Your task to perform on an android device: change your default location settings in chrome Image 0: 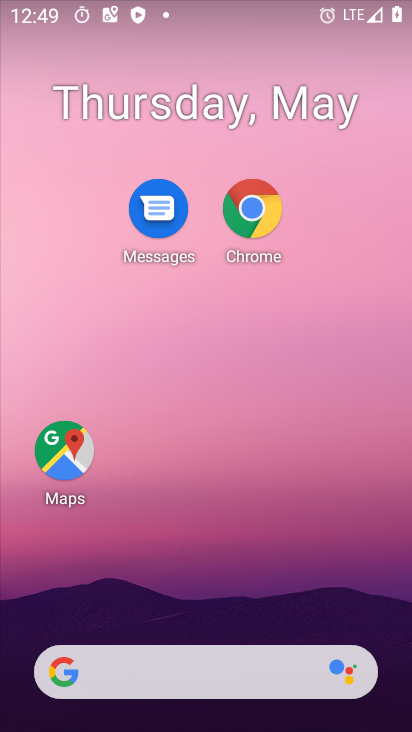
Step 0: drag from (181, 290) to (178, 248)
Your task to perform on an android device: change your default location settings in chrome Image 1: 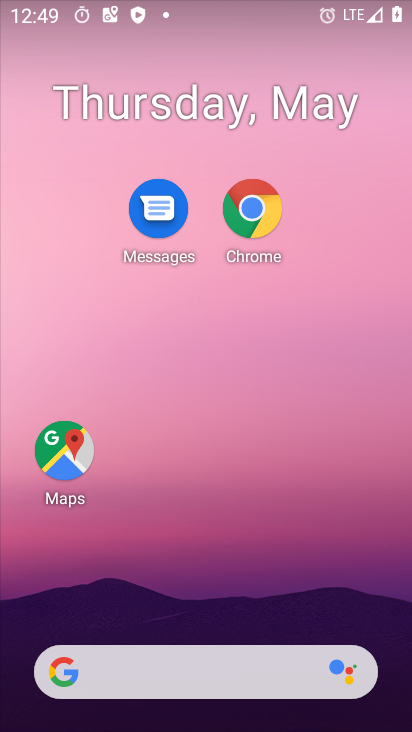
Step 1: click (260, 214)
Your task to perform on an android device: change your default location settings in chrome Image 2: 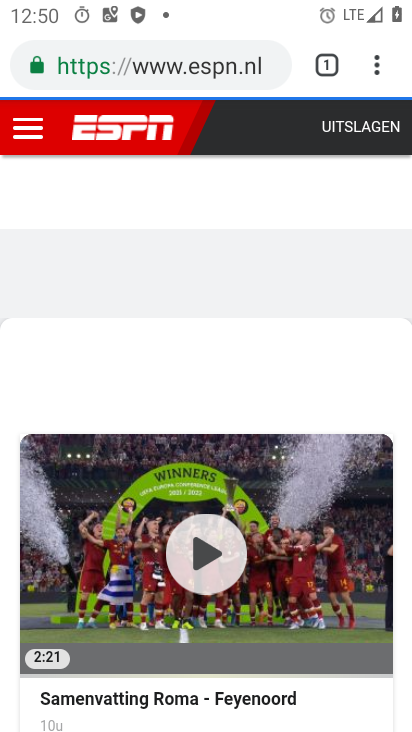
Step 2: click (379, 75)
Your task to perform on an android device: change your default location settings in chrome Image 3: 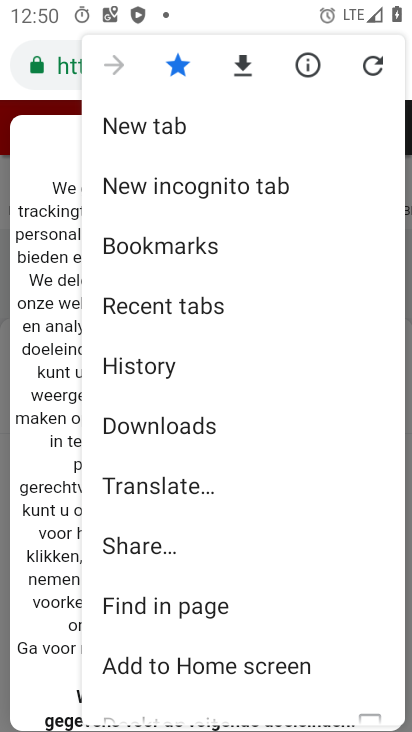
Step 3: drag from (173, 585) to (138, 4)
Your task to perform on an android device: change your default location settings in chrome Image 4: 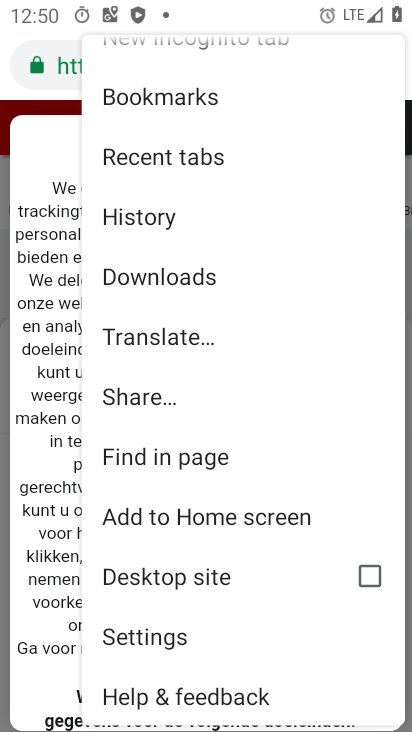
Step 4: click (132, 648)
Your task to perform on an android device: change your default location settings in chrome Image 5: 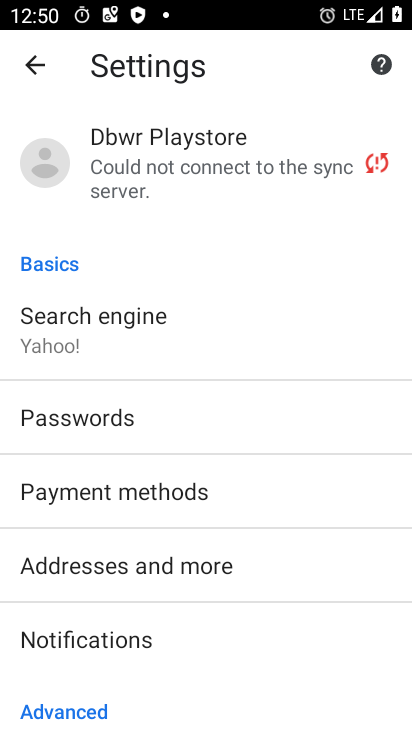
Step 5: drag from (118, 648) to (92, 343)
Your task to perform on an android device: change your default location settings in chrome Image 6: 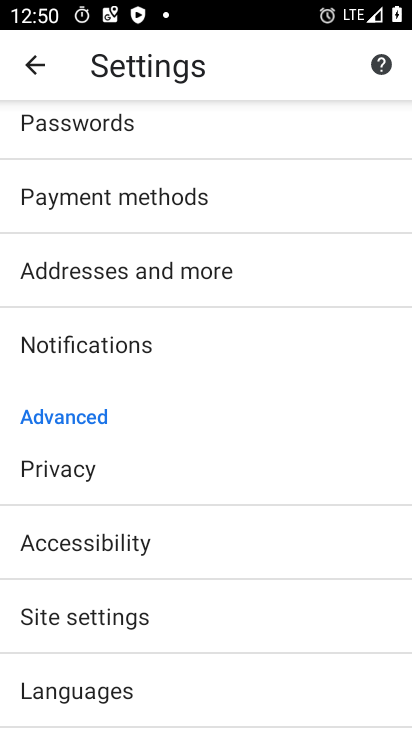
Step 6: click (75, 626)
Your task to perform on an android device: change your default location settings in chrome Image 7: 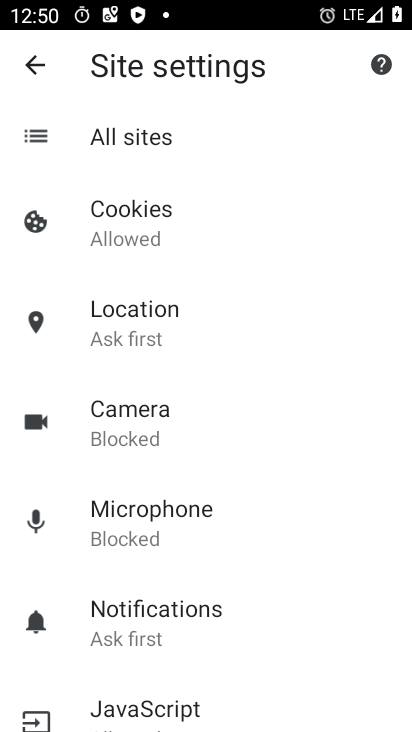
Step 7: click (138, 331)
Your task to perform on an android device: change your default location settings in chrome Image 8: 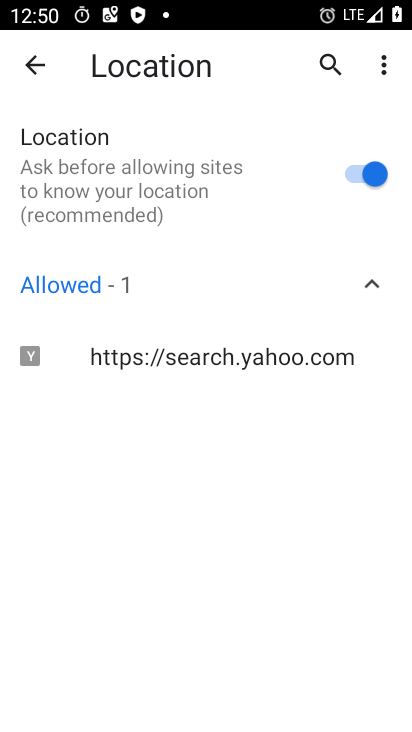
Step 8: click (351, 178)
Your task to perform on an android device: change your default location settings in chrome Image 9: 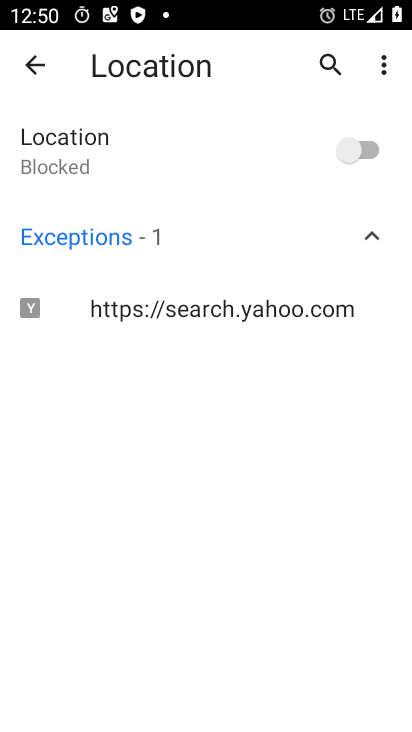
Step 9: task complete